Your task to perform on an android device: How much does the Samsung TV cost? Image 0: 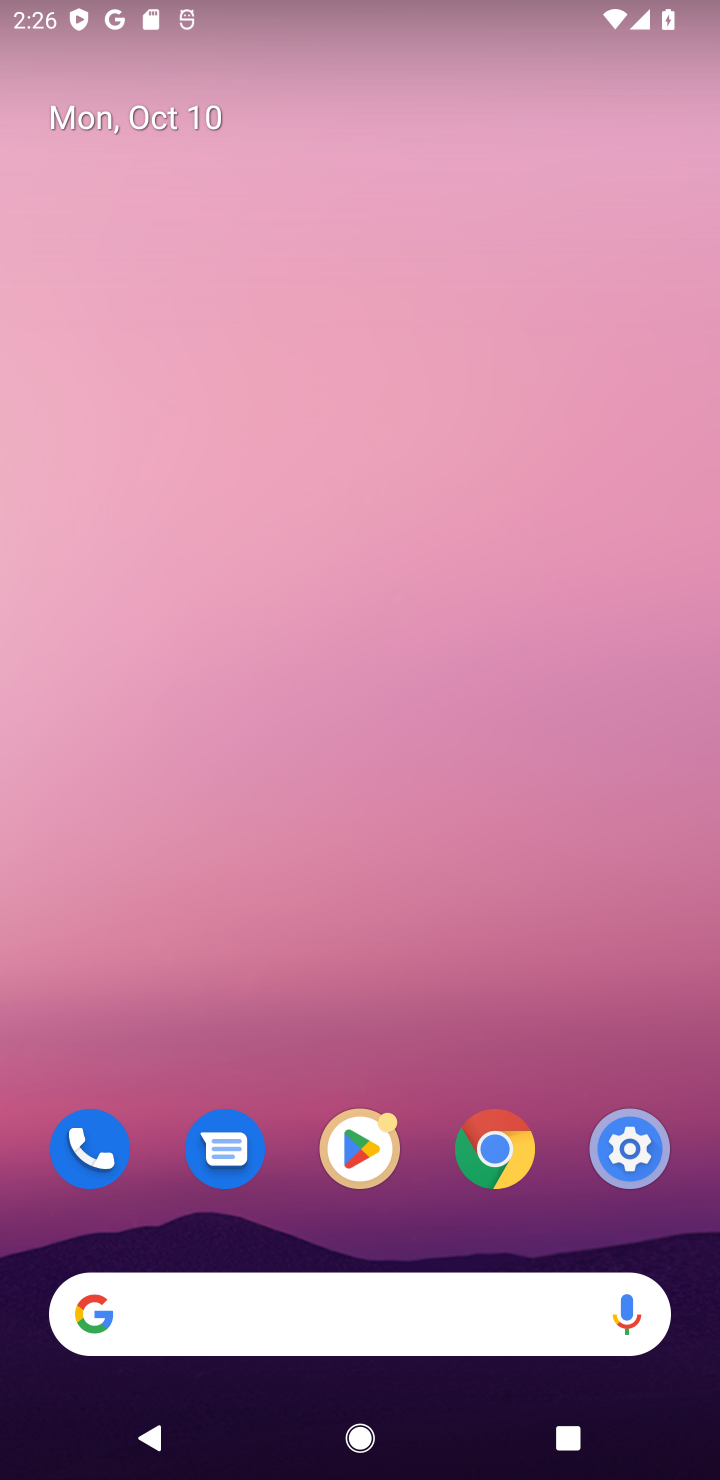
Step 0: click (268, 1311)
Your task to perform on an android device: How much does the Samsung TV cost? Image 1: 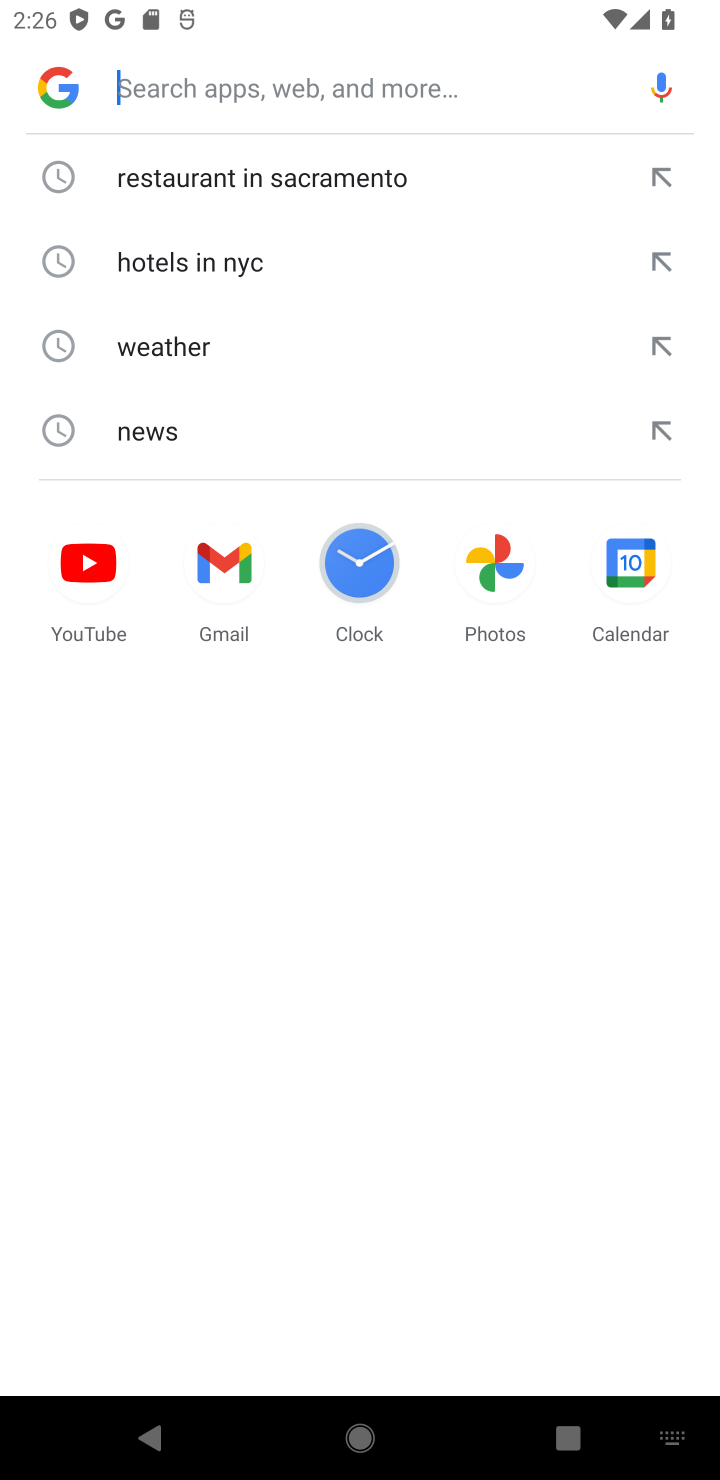
Step 1: type "How much does the Samsung TV cost?"
Your task to perform on an android device: How much does the Samsung TV cost? Image 2: 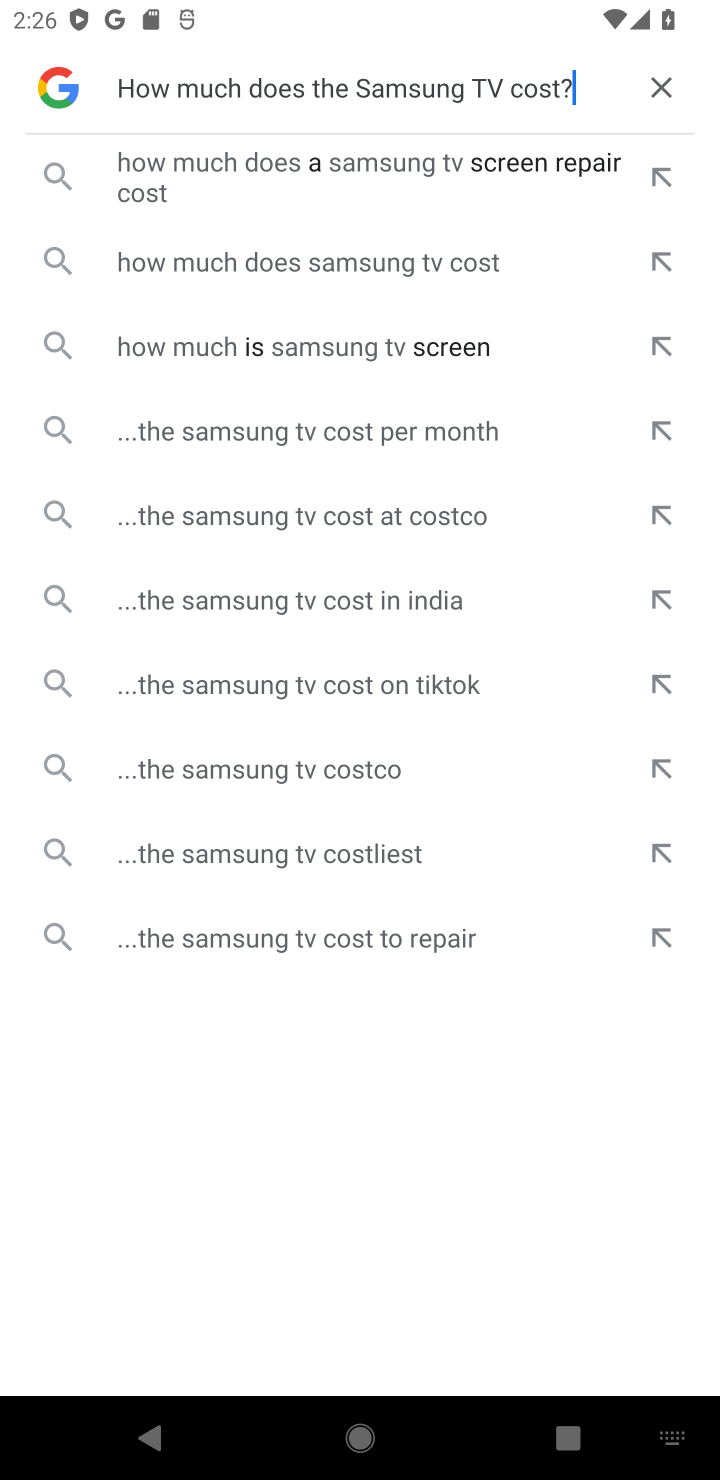
Step 2: click (139, 163)
Your task to perform on an android device: How much does the Samsung TV cost? Image 3: 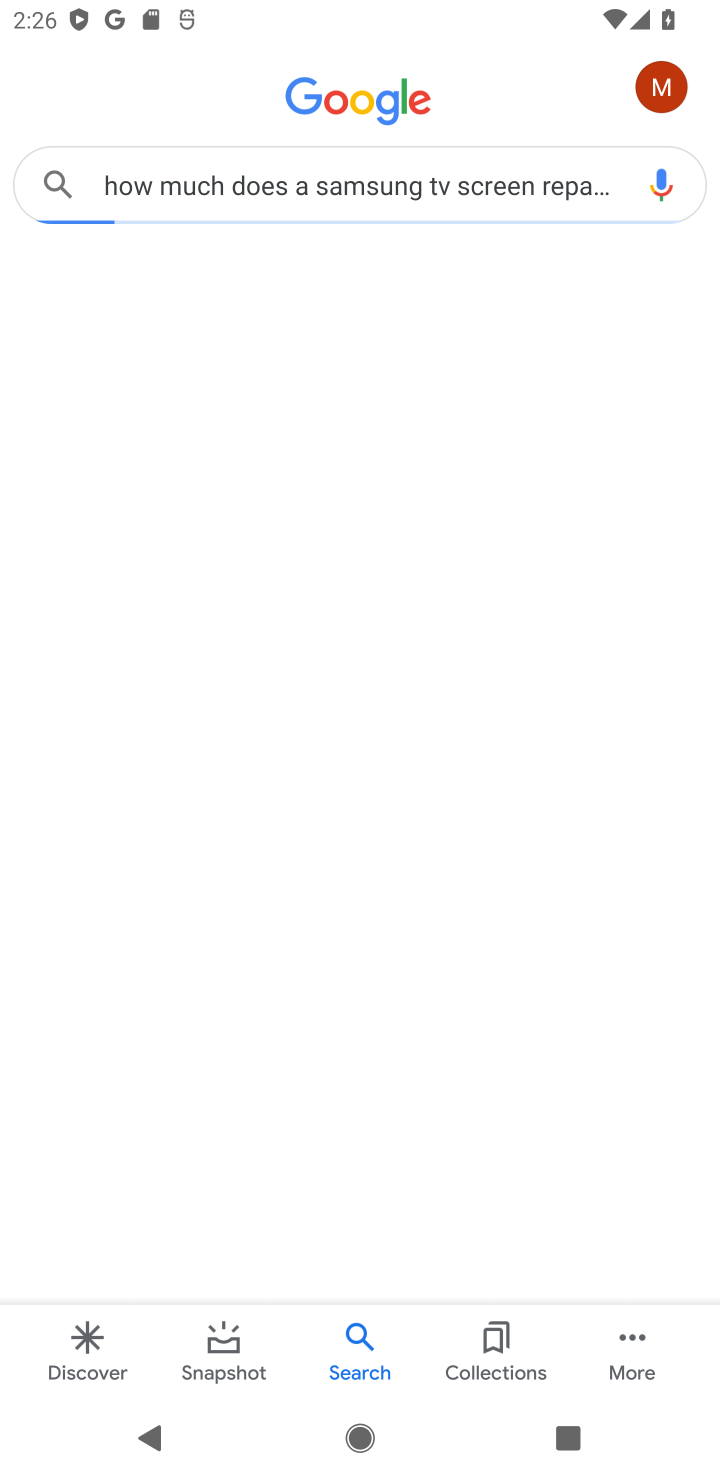
Step 3: task complete